Your task to perform on an android device: Do I have any events this weekend? Image 0: 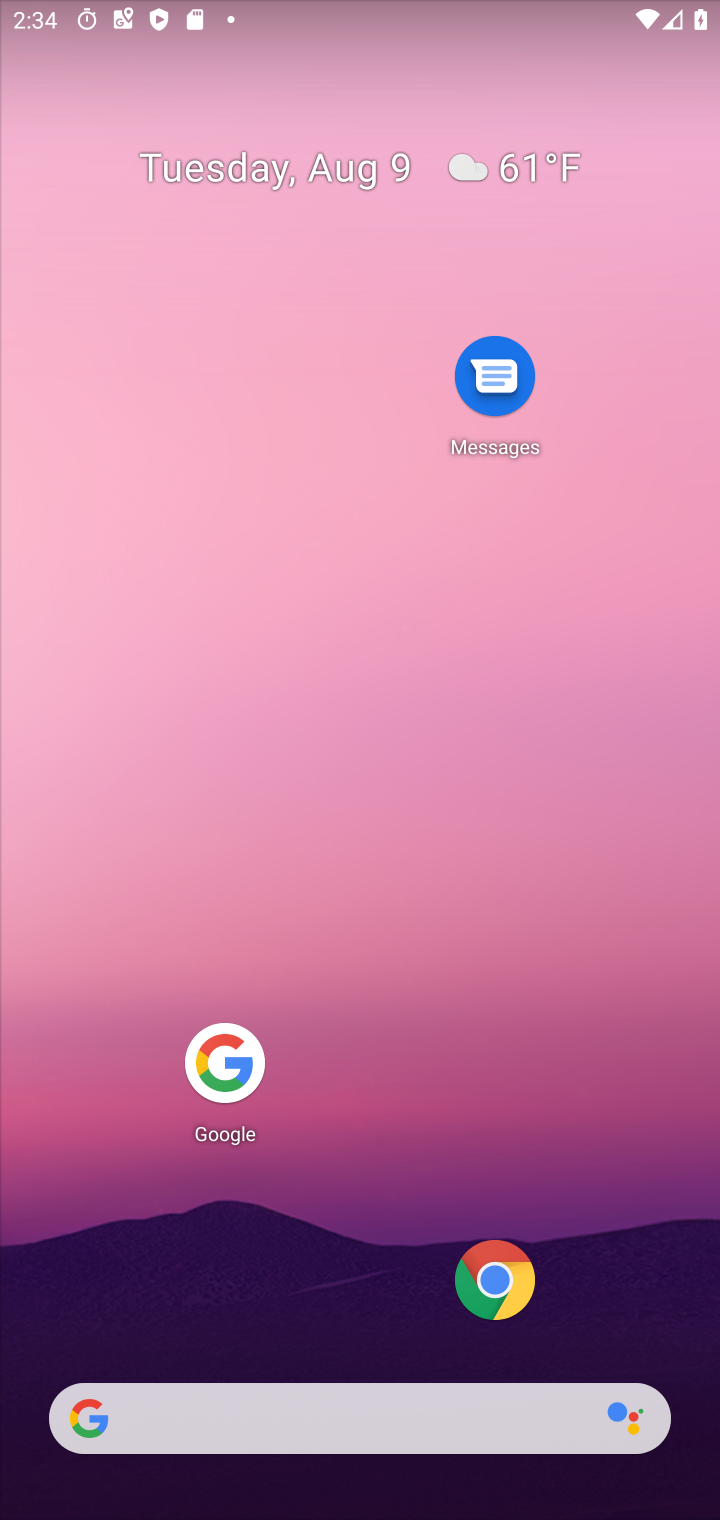
Step 0: press home button
Your task to perform on an android device: Do I have any events this weekend? Image 1: 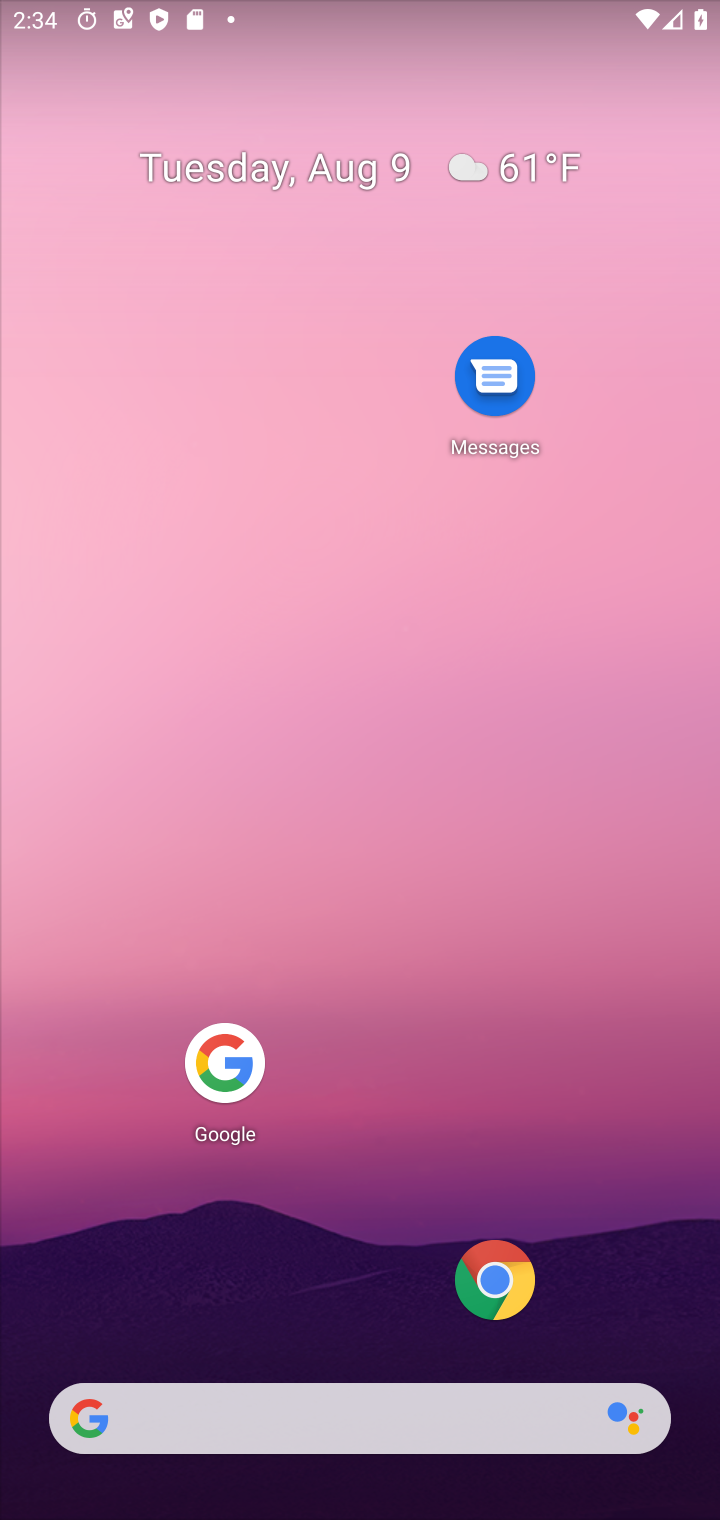
Step 1: drag from (369, 1412) to (606, 205)
Your task to perform on an android device: Do I have any events this weekend? Image 2: 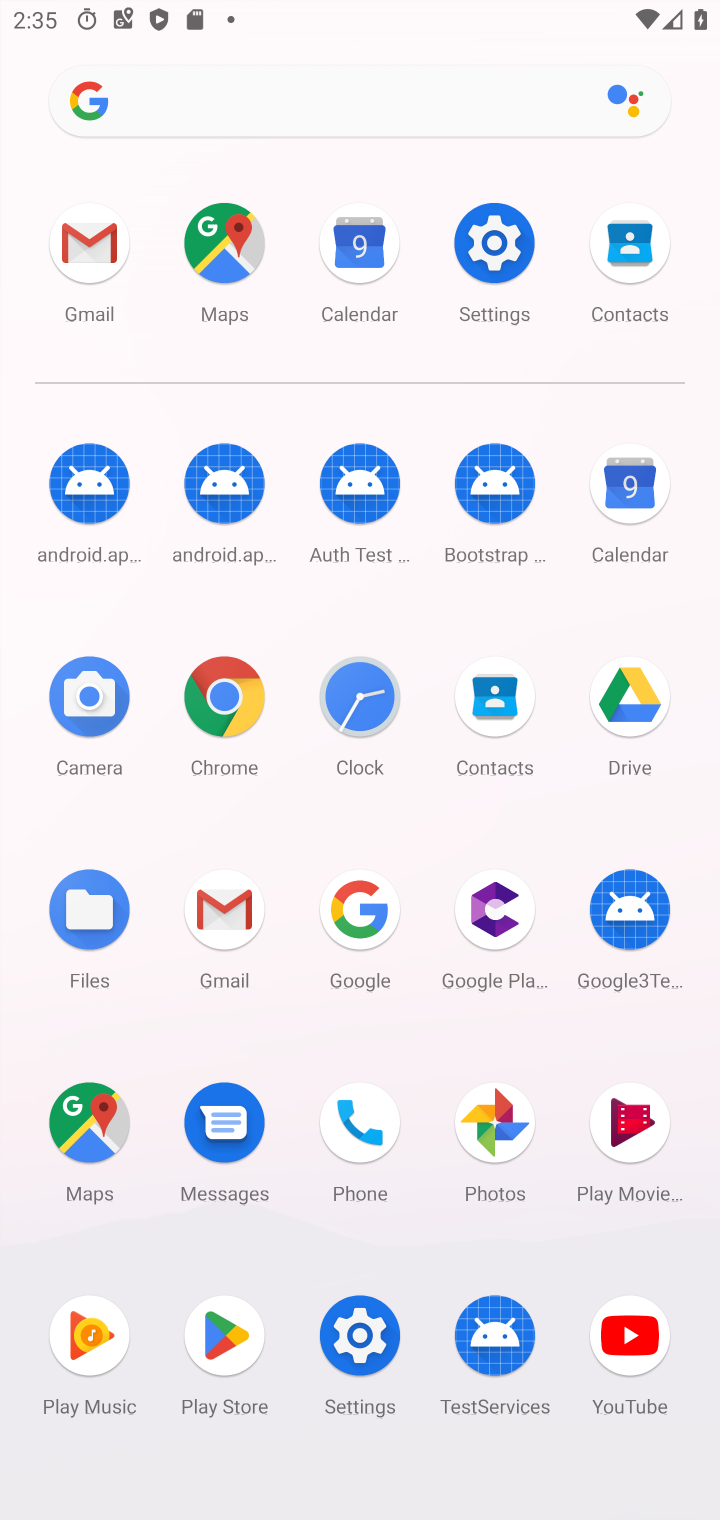
Step 2: click (624, 490)
Your task to perform on an android device: Do I have any events this weekend? Image 3: 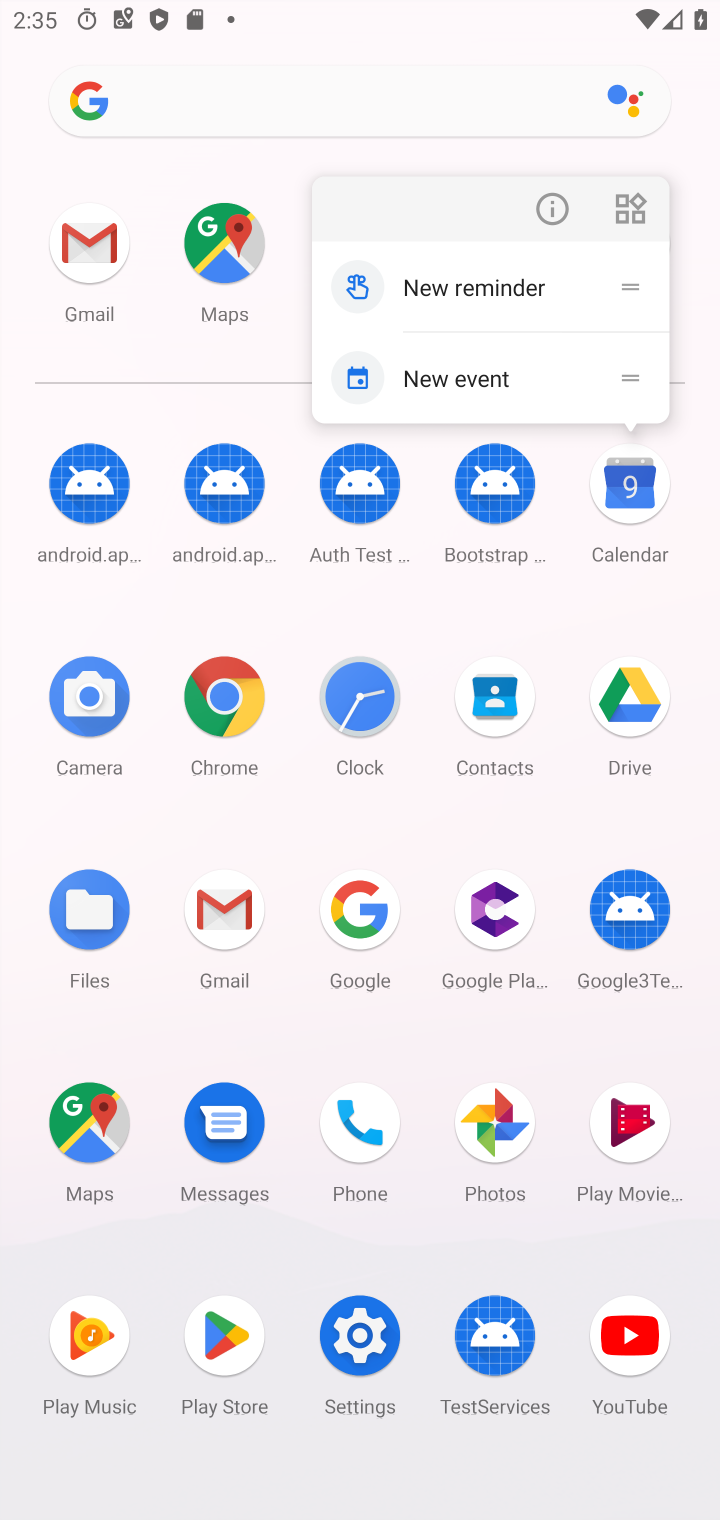
Step 3: click (633, 490)
Your task to perform on an android device: Do I have any events this weekend? Image 4: 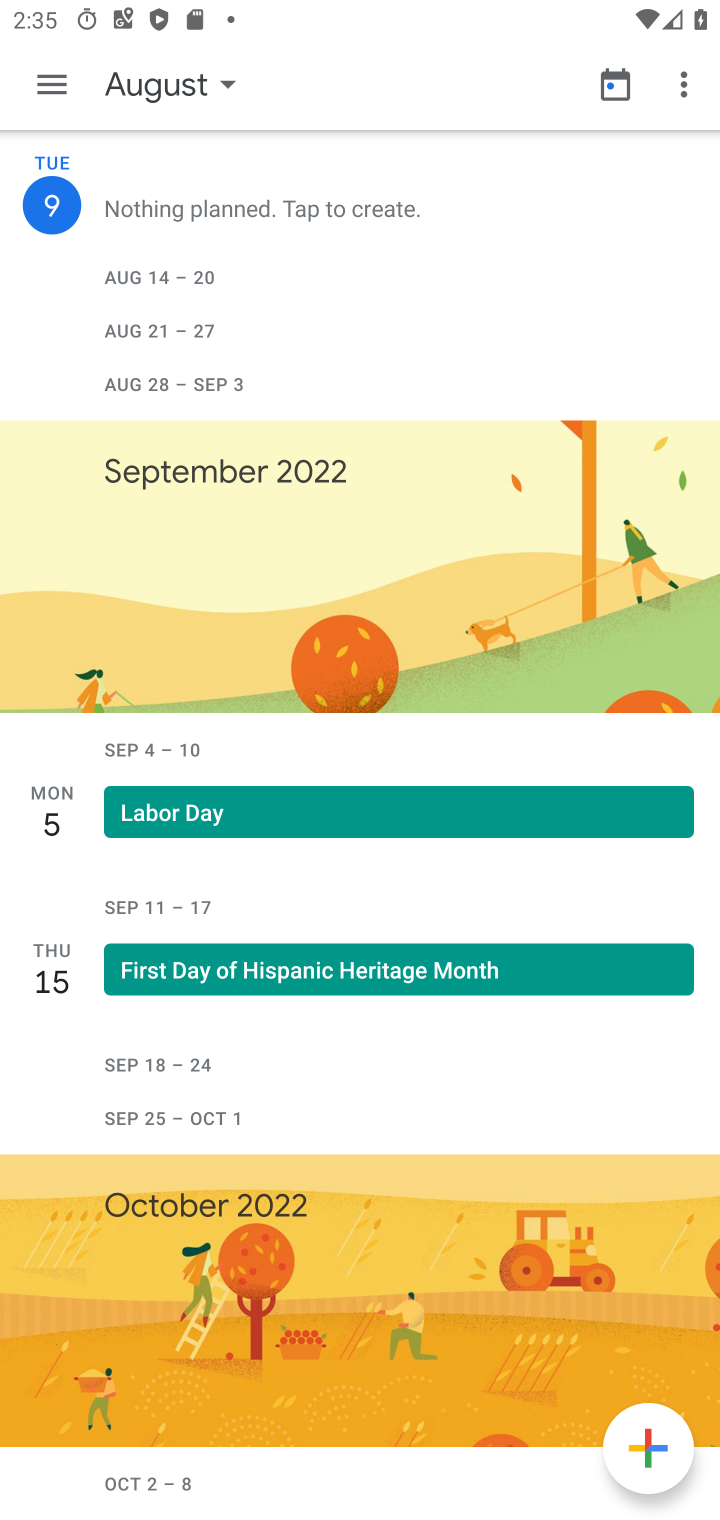
Step 4: click (160, 89)
Your task to perform on an android device: Do I have any events this weekend? Image 5: 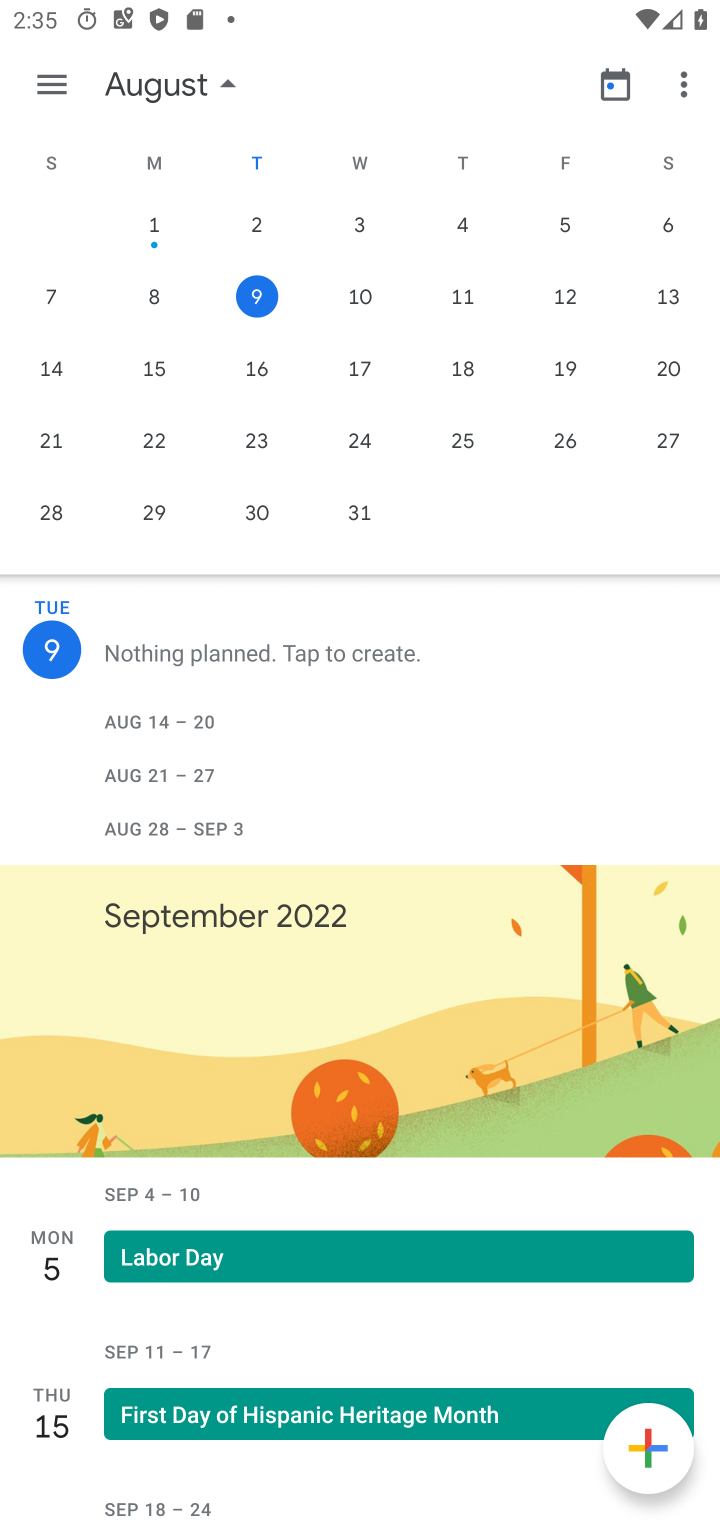
Step 5: click (671, 282)
Your task to perform on an android device: Do I have any events this weekend? Image 6: 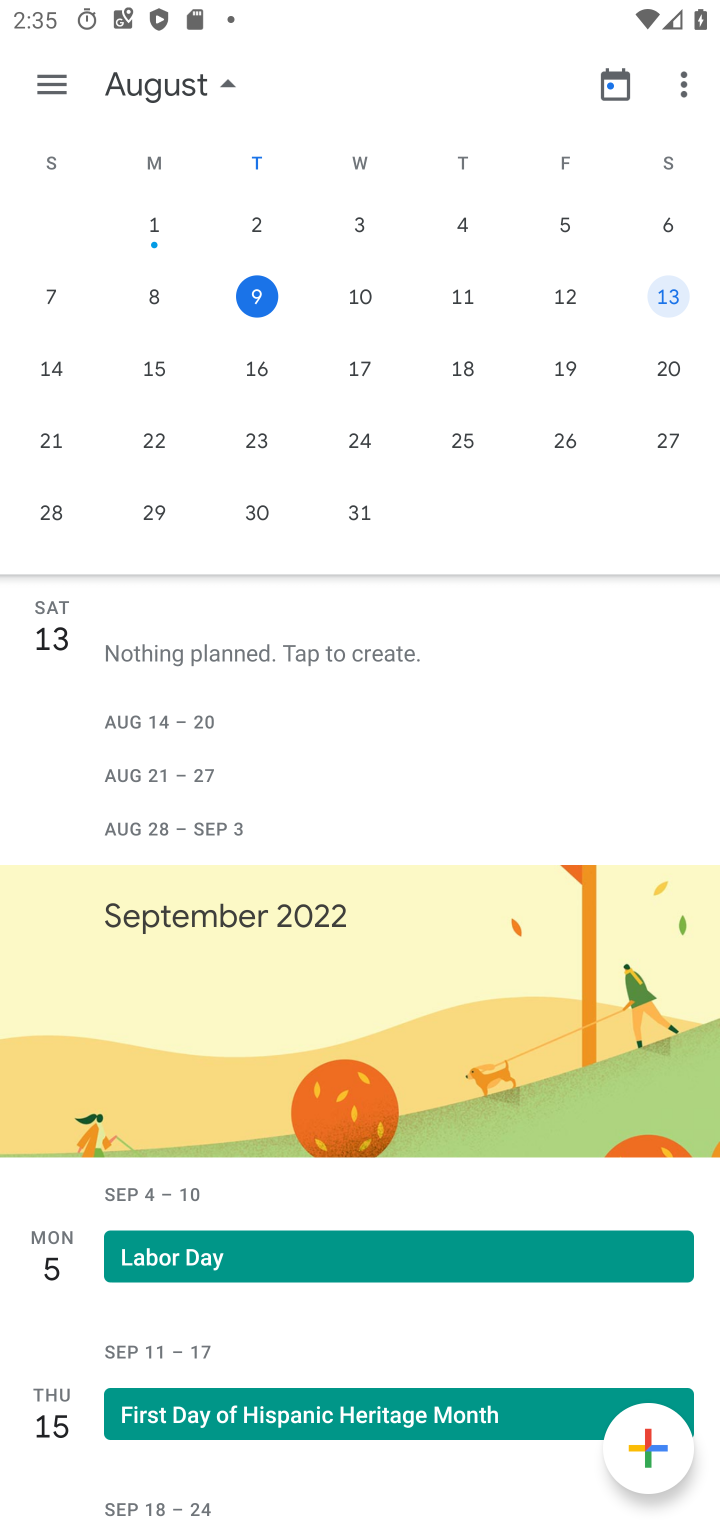
Step 6: click (51, 88)
Your task to perform on an android device: Do I have any events this weekend? Image 7: 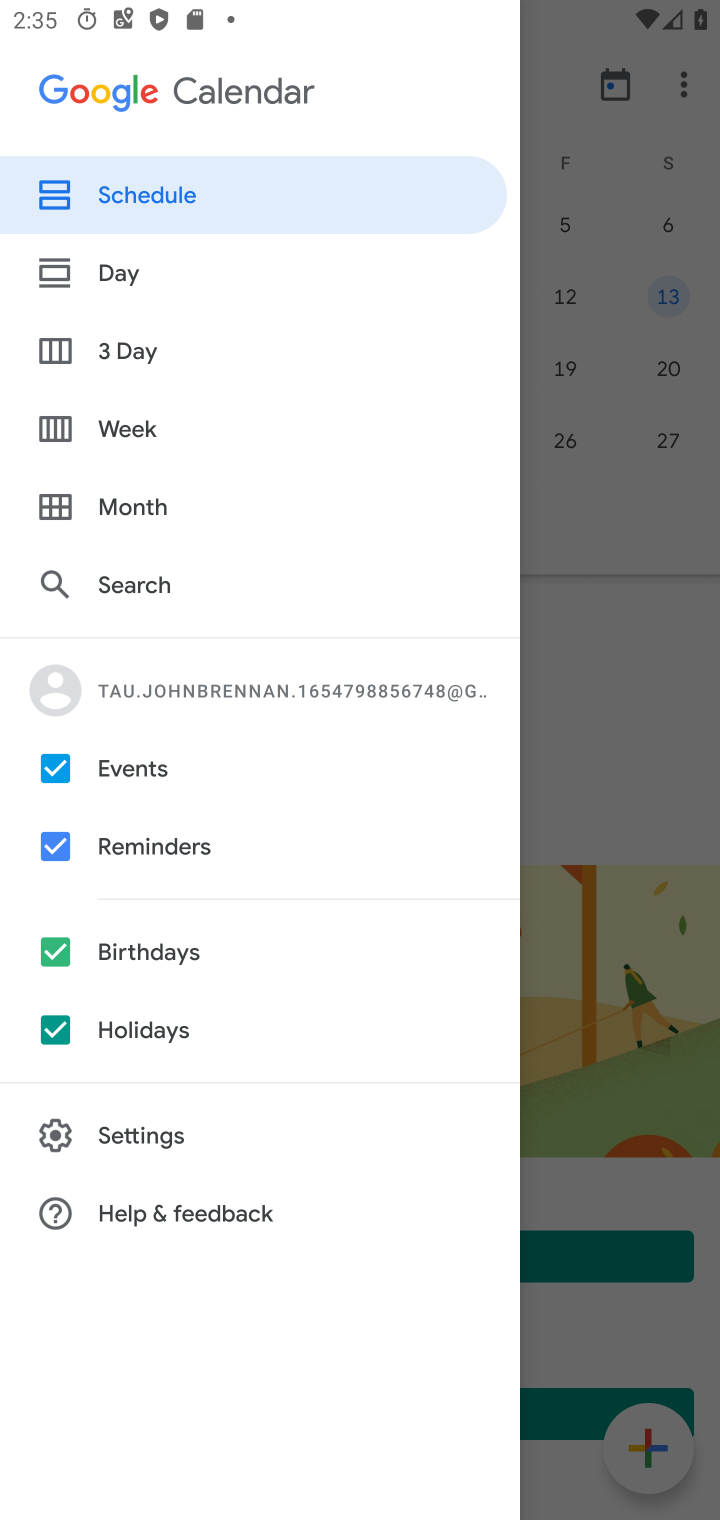
Step 7: click (121, 288)
Your task to perform on an android device: Do I have any events this weekend? Image 8: 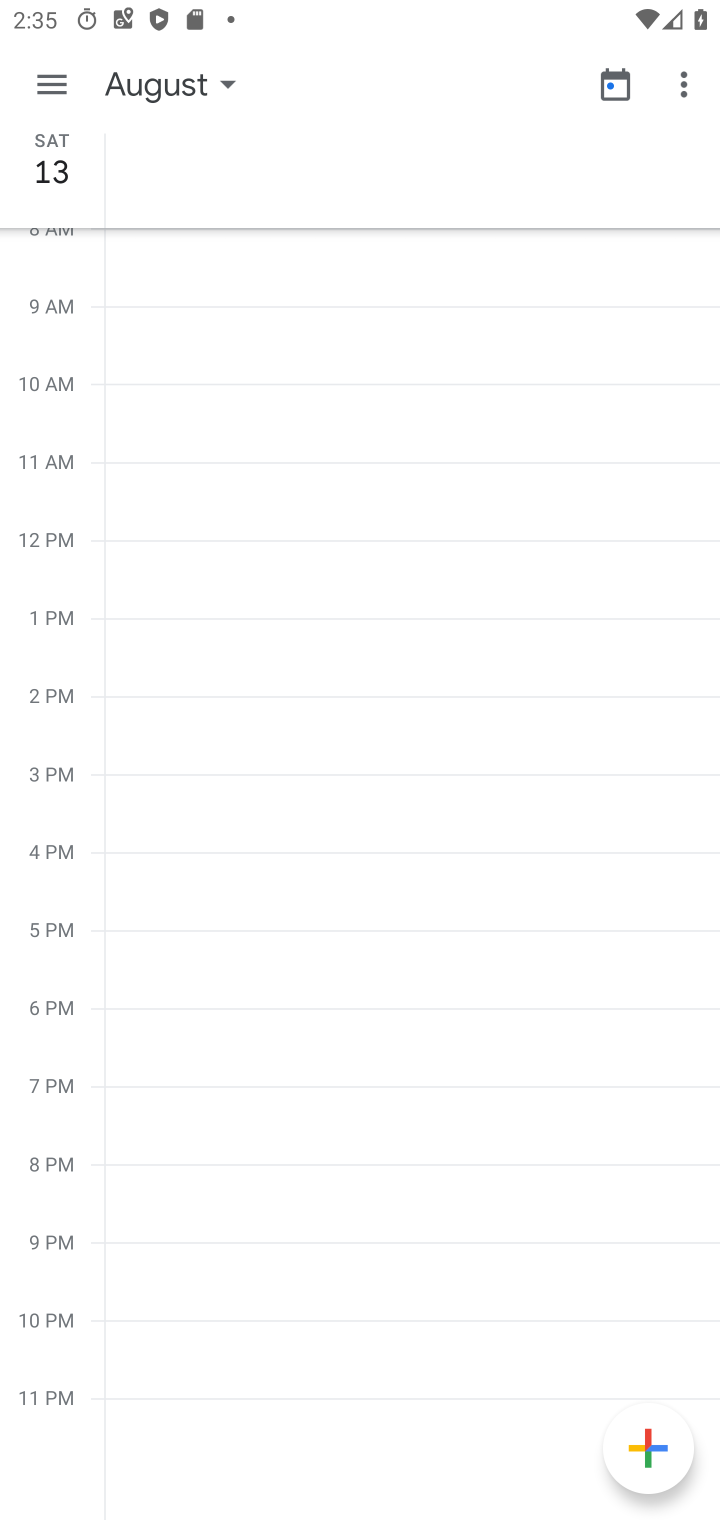
Step 8: click (58, 87)
Your task to perform on an android device: Do I have any events this weekend? Image 9: 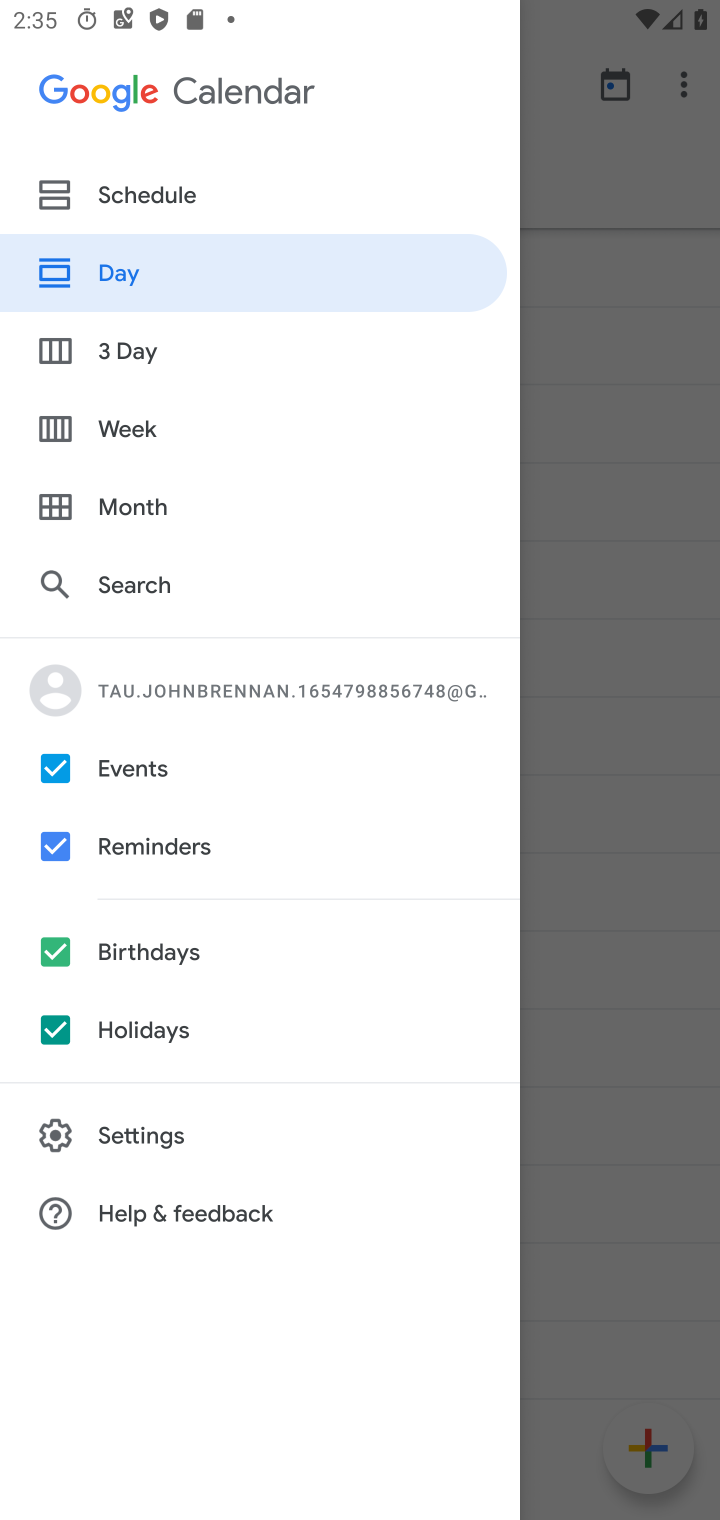
Step 9: click (169, 199)
Your task to perform on an android device: Do I have any events this weekend? Image 10: 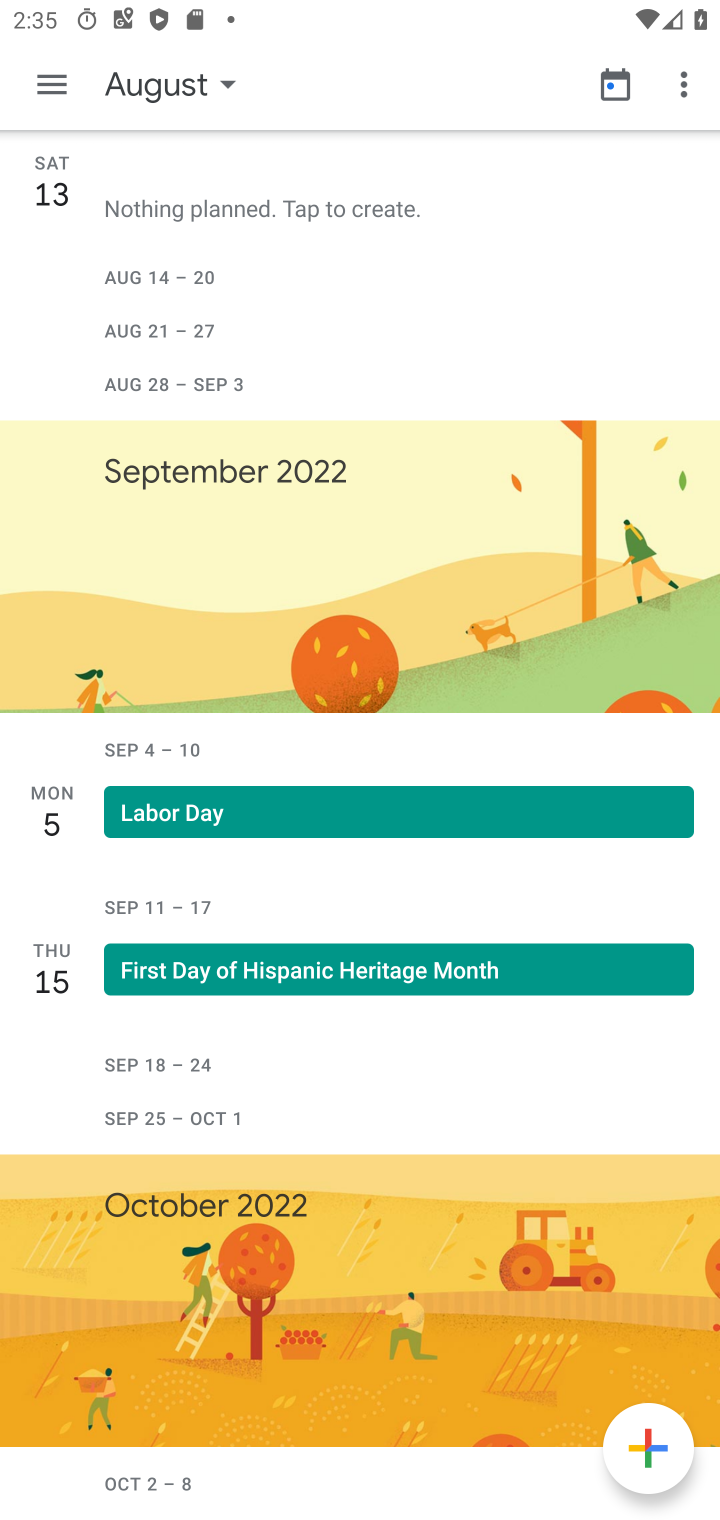
Step 10: task complete